Your task to perform on an android device: When is my next appointment? Image 0: 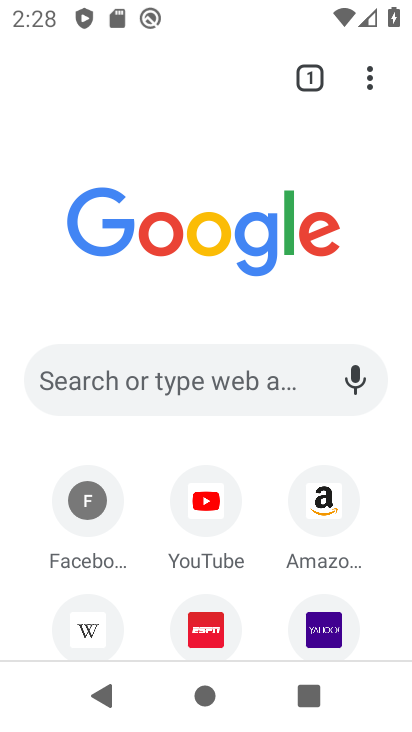
Step 0: press home button
Your task to perform on an android device: When is my next appointment? Image 1: 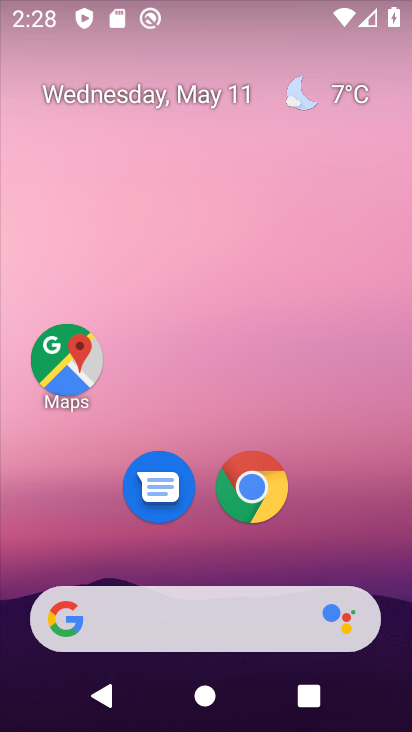
Step 1: drag from (168, 511) to (113, 0)
Your task to perform on an android device: When is my next appointment? Image 2: 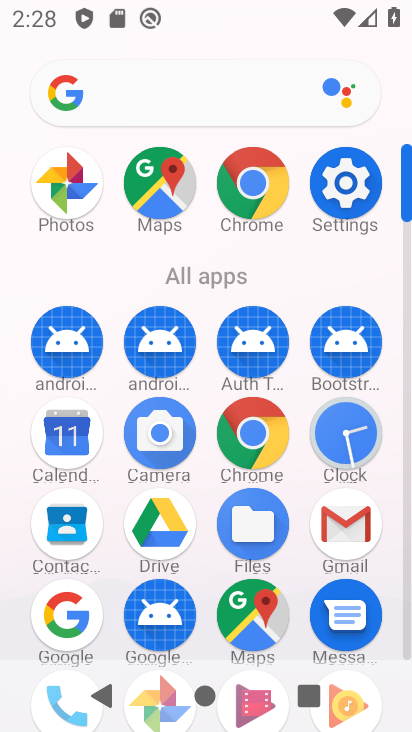
Step 2: click (58, 456)
Your task to perform on an android device: When is my next appointment? Image 3: 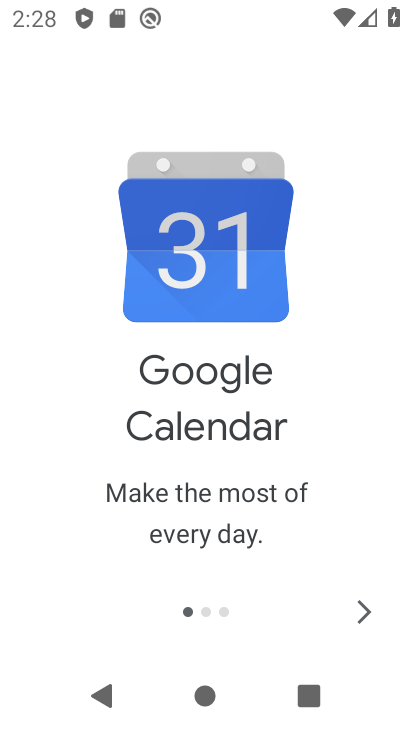
Step 3: click (372, 613)
Your task to perform on an android device: When is my next appointment? Image 4: 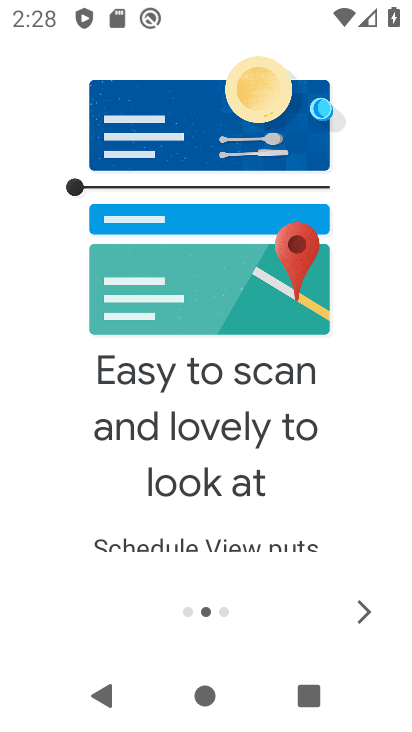
Step 4: click (372, 613)
Your task to perform on an android device: When is my next appointment? Image 5: 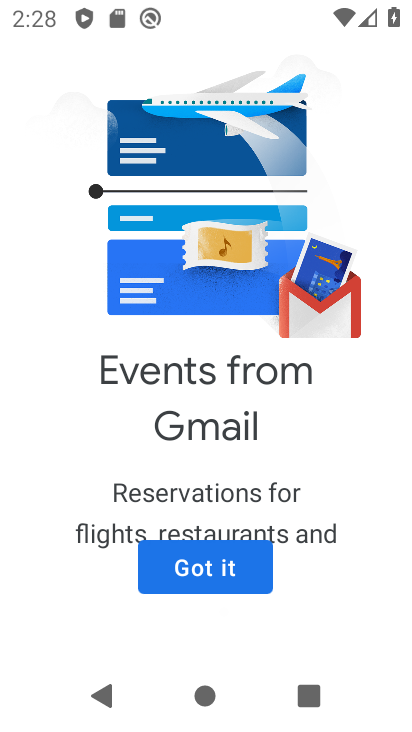
Step 5: click (372, 613)
Your task to perform on an android device: When is my next appointment? Image 6: 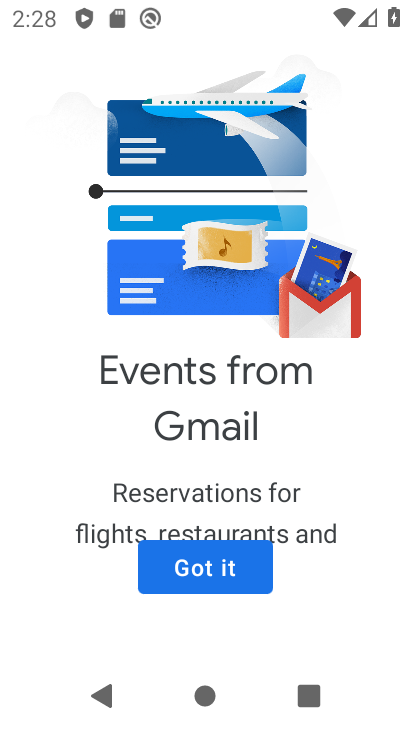
Step 6: click (189, 571)
Your task to perform on an android device: When is my next appointment? Image 7: 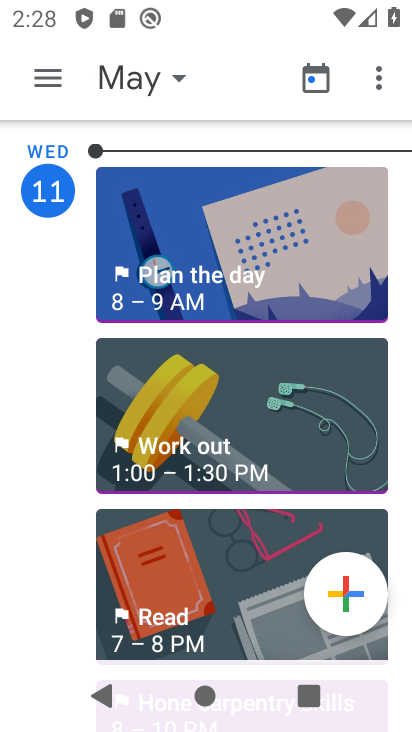
Step 7: click (171, 75)
Your task to perform on an android device: When is my next appointment? Image 8: 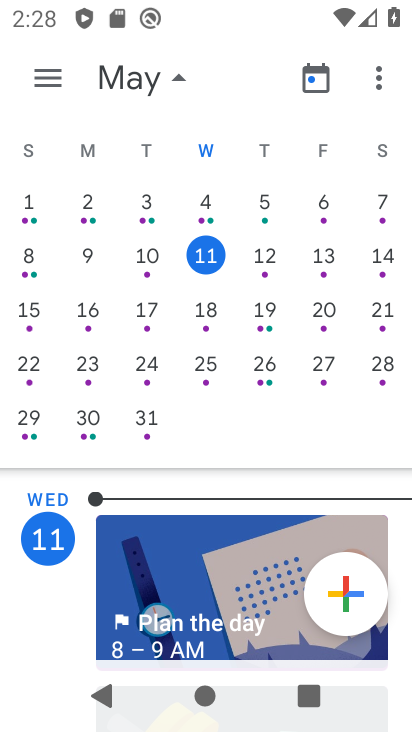
Step 8: click (274, 264)
Your task to perform on an android device: When is my next appointment? Image 9: 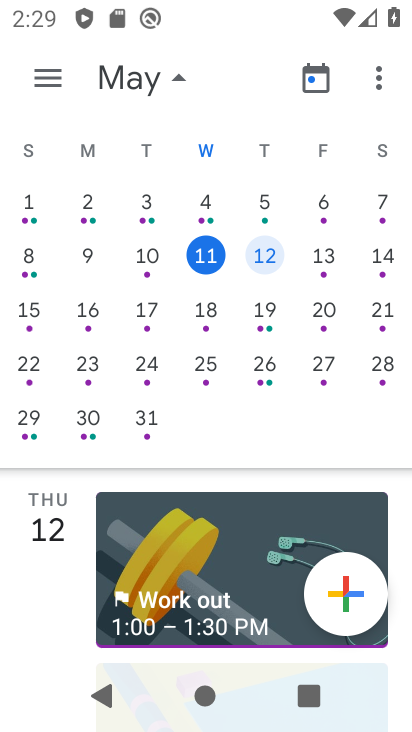
Step 9: task complete